Your task to perform on an android device: turn pop-ups off in chrome Image 0: 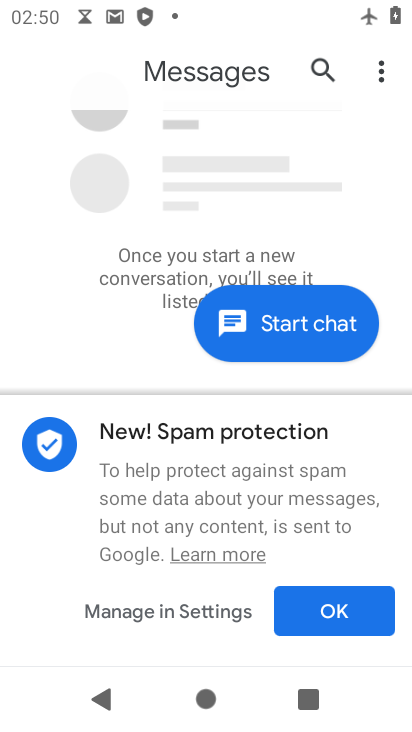
Step 0: press home button
Your task to perform on an android device: turn pop-ups off in chrome Image 1: 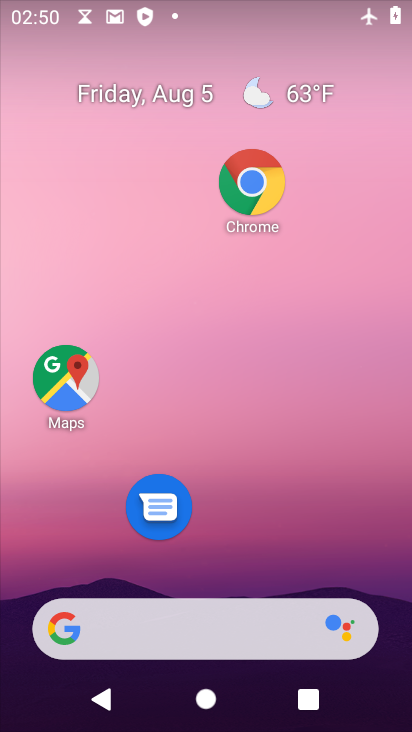
Step 1: drag from (210, 576) to (218, 128)
Your task to perform on an android device: turn pop-ups off in chrome Image 2: 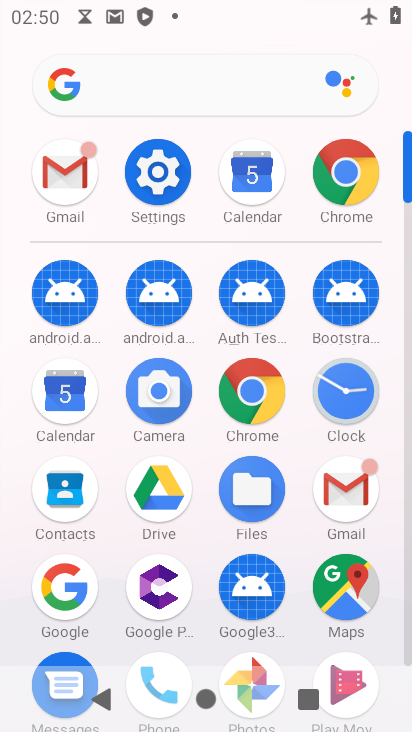
Step 2: click (258, 397)
Your task to perform on an android device: turn pop-ups off in chrome Image 3: 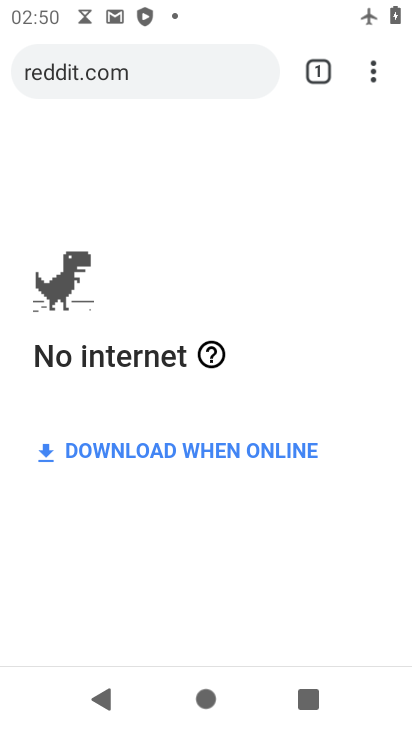
Step 3: click (373, 62)
Your task to perform on an android device: turn pop-ups off in chrome Image 4: 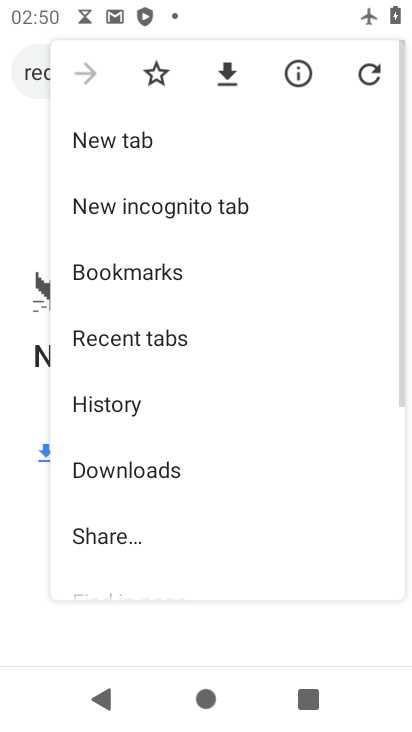
Step 4: drag from (162, 482) to (190, 189)
Your task to perform on an android device: turn pop-ups off in chrome Image 5: 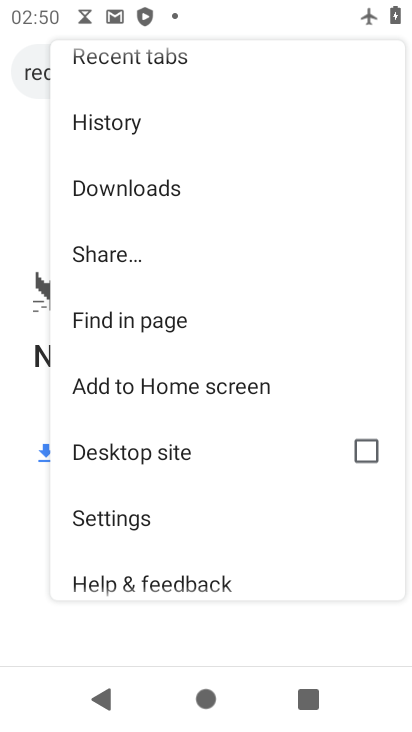
Step 5: click (152, 530)
Your task to perform on an android device: turn pop-ups off in chrome Image 6: 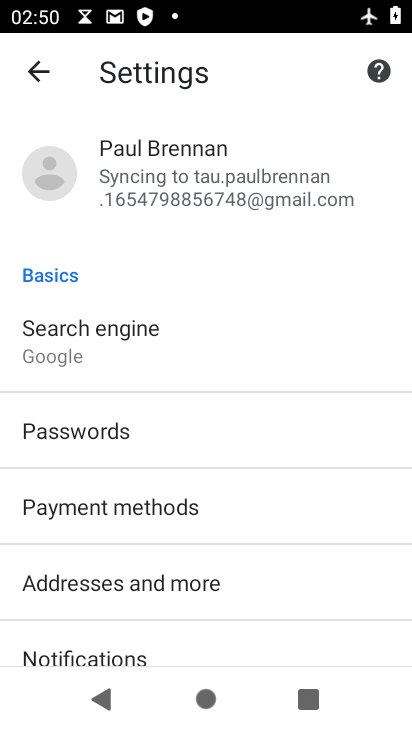
Step 6: drag from (158, 538) to (191, 306)
Your task to perform on an android device: turn pop-ups off in chrome Image 7: 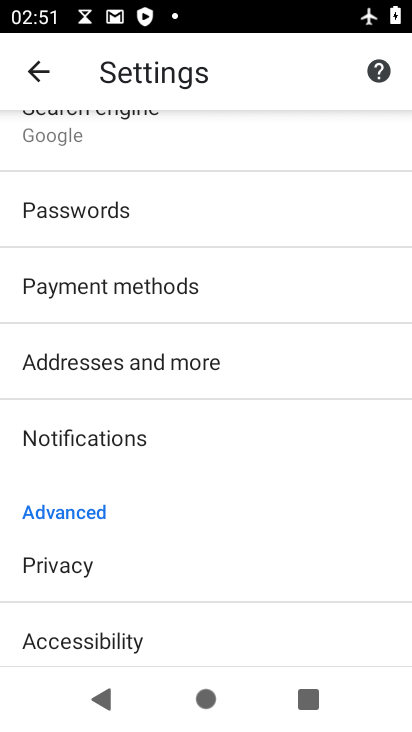
Step 7: drag from (153, 455) to (180, 203)
Your task to perform on an android device: turn pop-ups off in chrome Image 8: 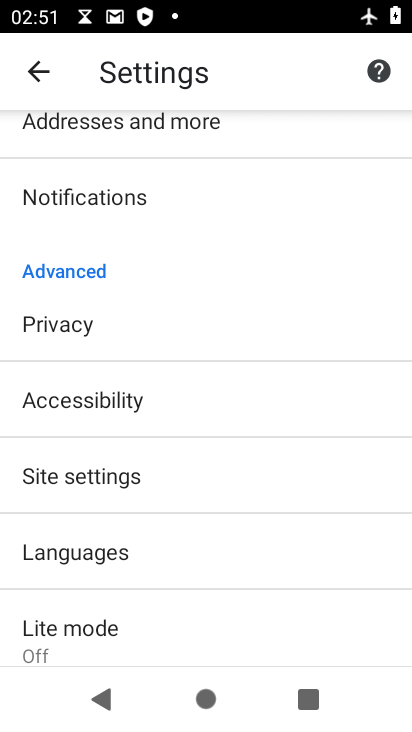
Step 8: click (103, 478)
Your task to perform on an android device: turn pop-ups off in chrome Image 9: 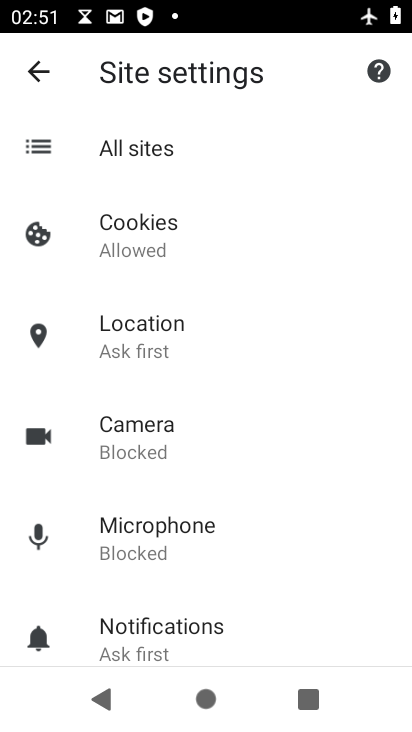
Step 9: drag from (202, 478) to (202, 261)
Your task to perform on an android device: turn pop-ups off in chrome Image 10: 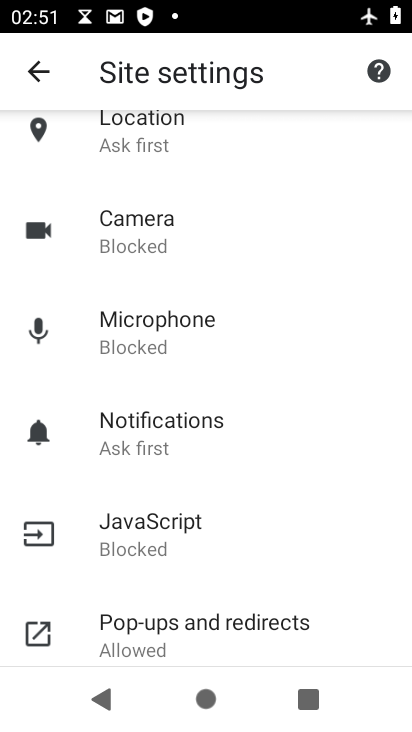
Step 10: click (162, 625)
Your task to perform on an android device: turn pop-ups off in chrome Image 11: 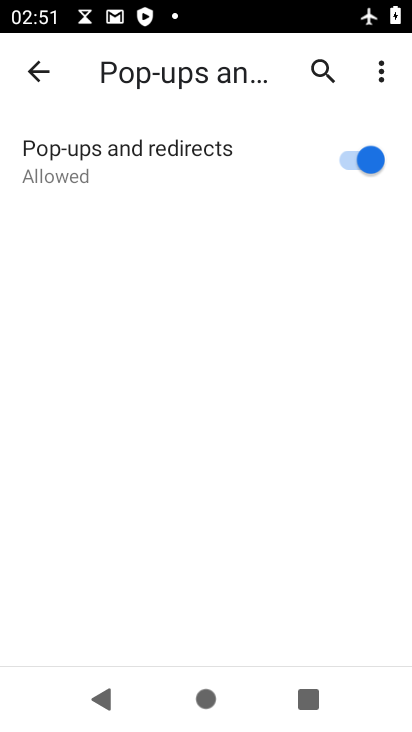
Step 11: click (328, 163)
Your task to perform on an android device: turn pop-ups off in chrome Image 12: 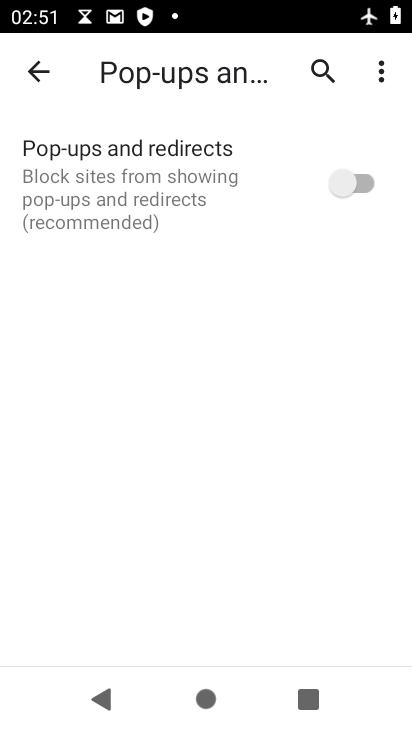
Step 12: task complete